Your task to perform on an android device: Do I have any events today? Image 0: 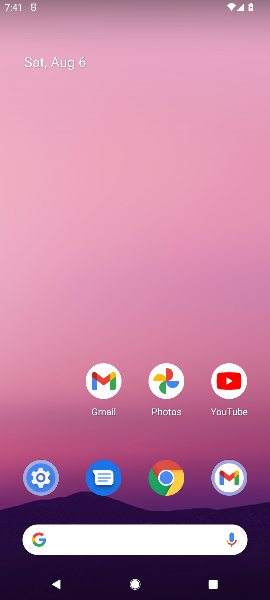
Step 0: press home button
Your task to perform on an android device: Do I have any events today? Image 1: 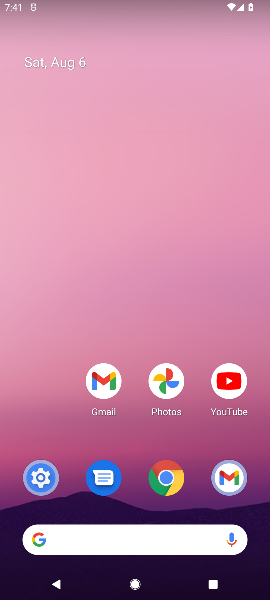
Step 1: drag from (72, 421) to (59, 48)
Your task to perform on an android device: Do I have any events today? Image 2: 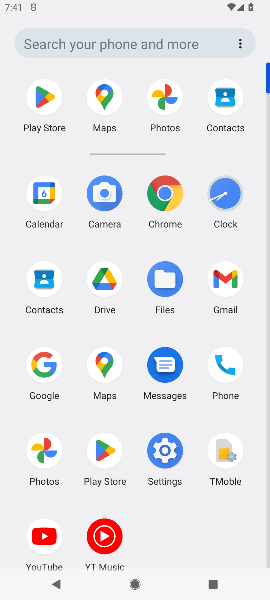
Step 2: click (55, 197)
Your task to perform on an android device: Do I have any events today? Image 3: 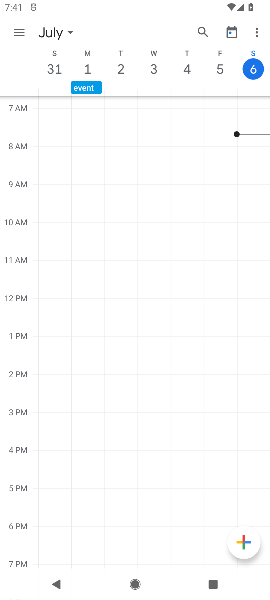
Step 3: click (257, 70)
Your task to perform on an android device: Do I have any events today? Image 4: 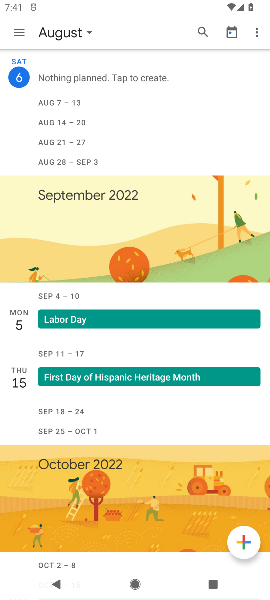
Step 4: task complete